Your task to perform on an android device: check android version Image 0: 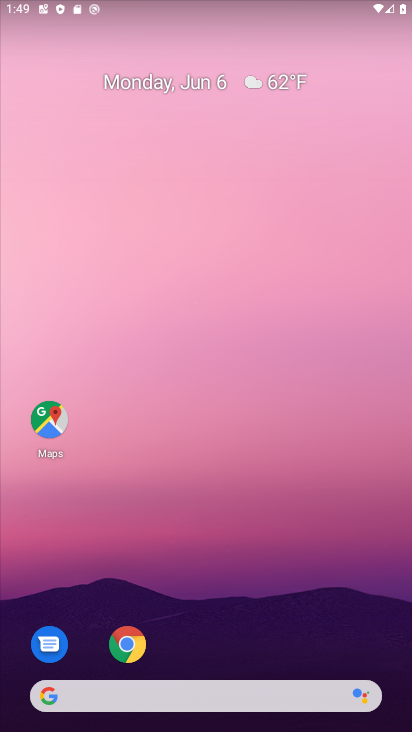
Step 0: drag from (143, 690) to (114, 54)
Your task to perform on an android device: check android version Image 1: 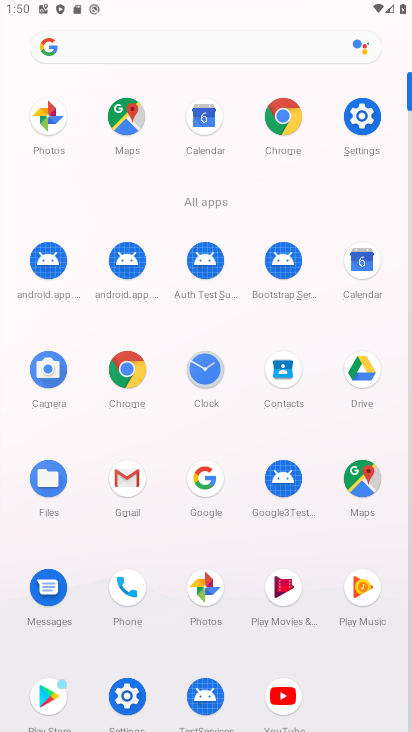
Step 1: click (371, 129)
Your task to perform on an android device: check android version Image 2: 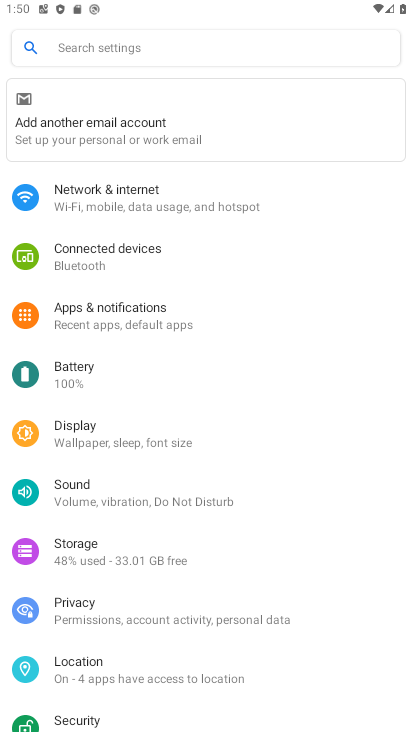
Step 2: drag from (125, 702) to (165, 163)
Your task to perform on an android device: check android version Image 3: 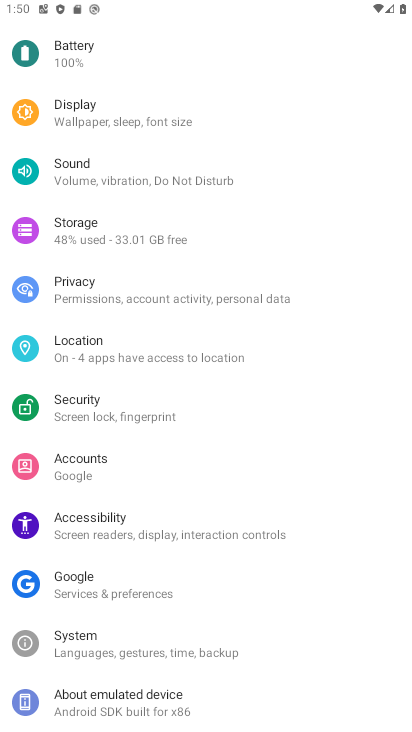
Step 3: click (175, 704)
Your task to perform on an android device: check android version Image 4: 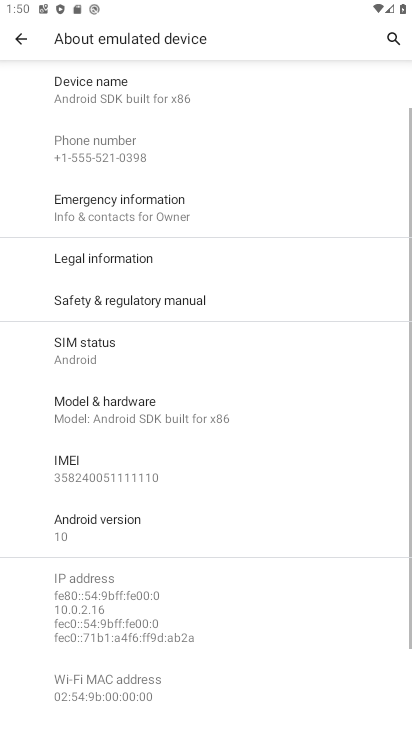
Step 4: click (101, 531)
Your task to perform on an android device: check android version Image 5: 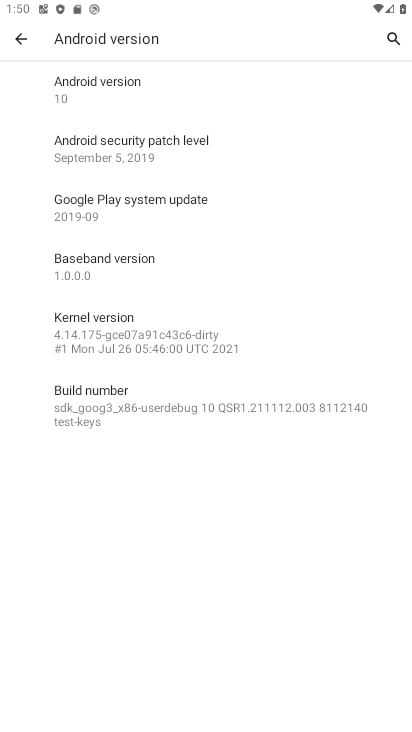
Step 5: task complete